Your task to perform on an android device: Open my contact list Image 0: 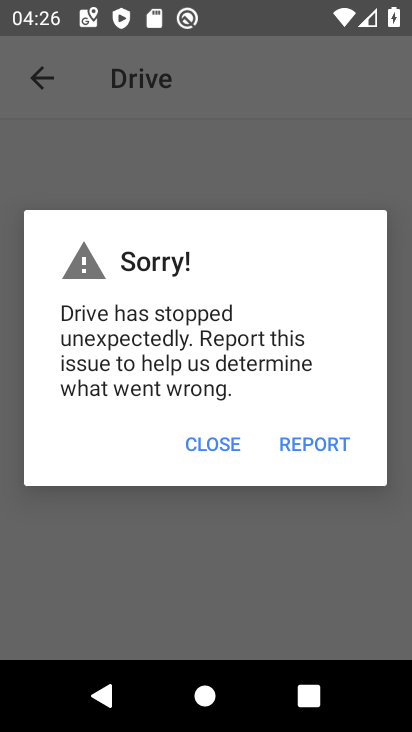
Step 0: drag from (177, 483) to (261, 223)
Your task to perform on an android device: Open my contact list Image 1: 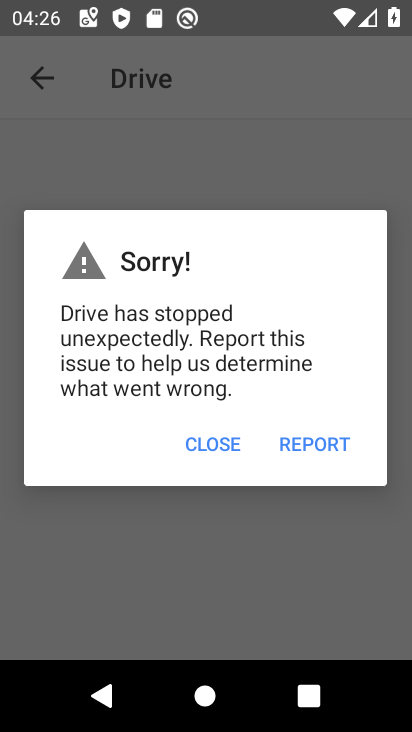
Step 1: press home button
Your task to perform on an android device: Open my contact list Image 2: 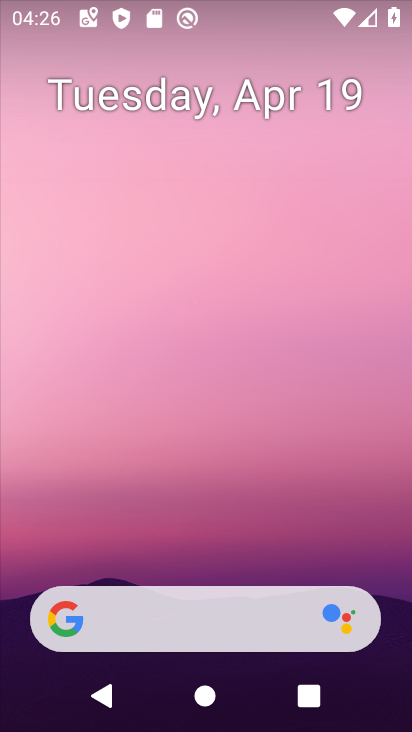
Step 2: drag from (207, 526) to (259, 271)
Your task to perform on an android device: Open my contact list Image 3: 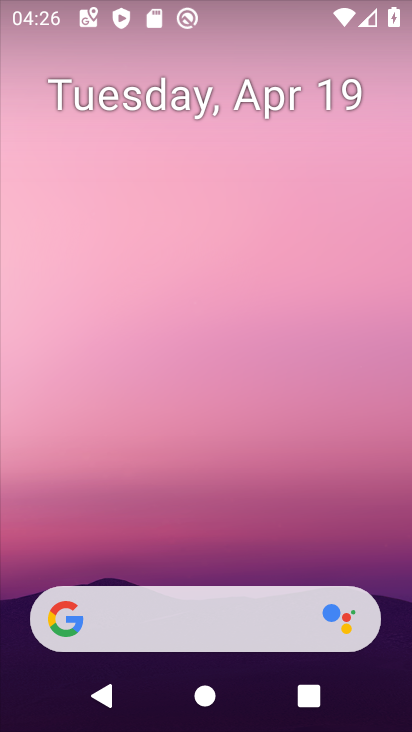
Step 3: drag from (101, 519) to (209, 172)
Your task to perform on an android device: Open my contact list Image 4: 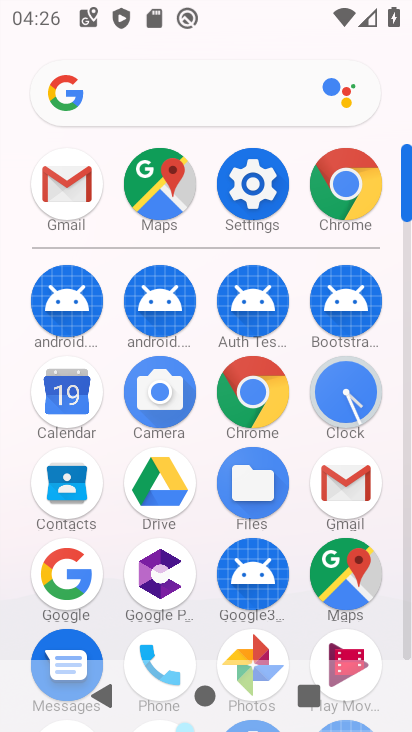
Step 4: click (49, 493)
Your task to perform on an android device: Open my contact list Image 5: 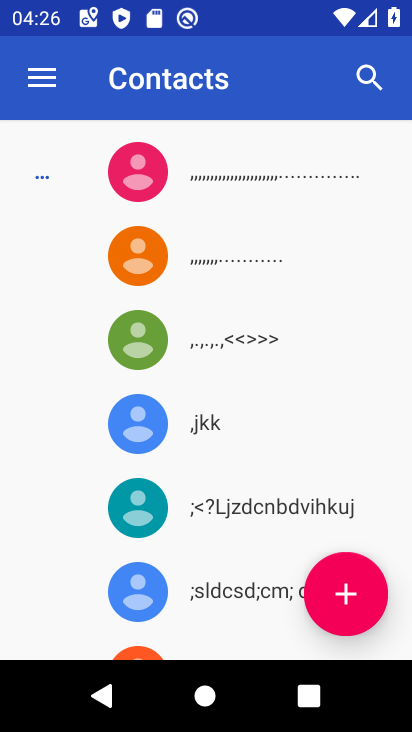
Step 5: task complete